Your task to perform on an android device: read, delete, or share a saved page in the chrome app Image 0: 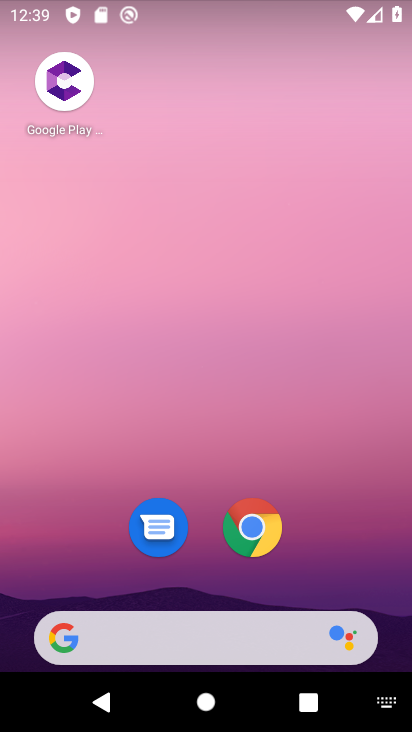
Step 0: drag from (287, 594) to (344, 0)
Your task to perform on an android device: read, delete, or share a saved page in the chrome app Image 1: 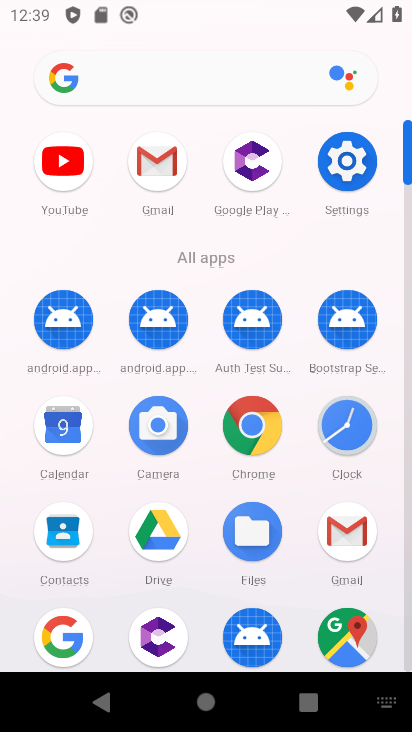
Step 1: click (253, 428)
Your task to perform on an android device: read, delete, or share a saved page in the chrome app Image 2: 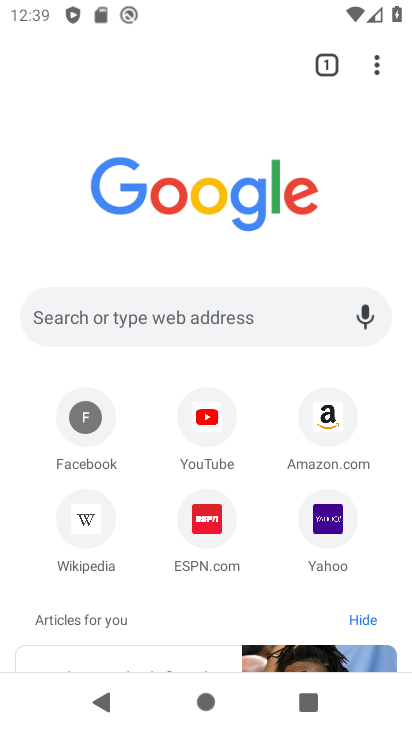
Step 2: click (372, 61)
Your task to perform on an android device: read, delete, or share a saved page in the chrome app Image 3: 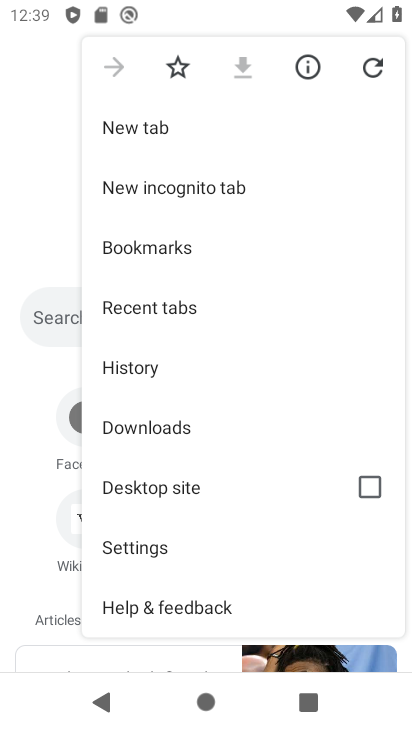
Step 3: click (165, 428)
Your task to perform on an android device: read, delete, or share a saved page in the chrome app Image 4: 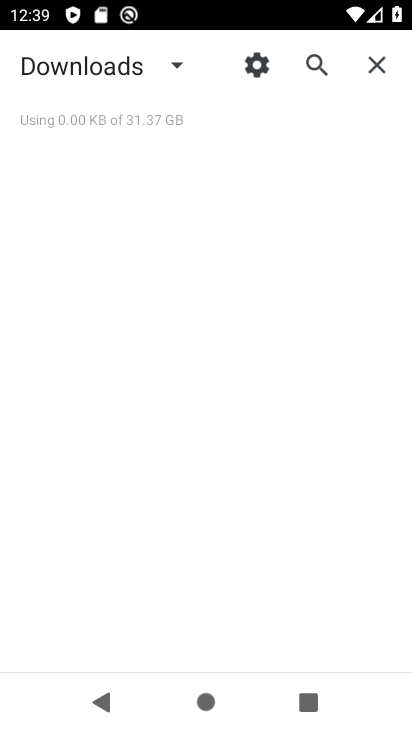
Step 4: click (139, 66)
Your task to perform on an android device: read, delete, or share a saved page in the chrome app Image 5: 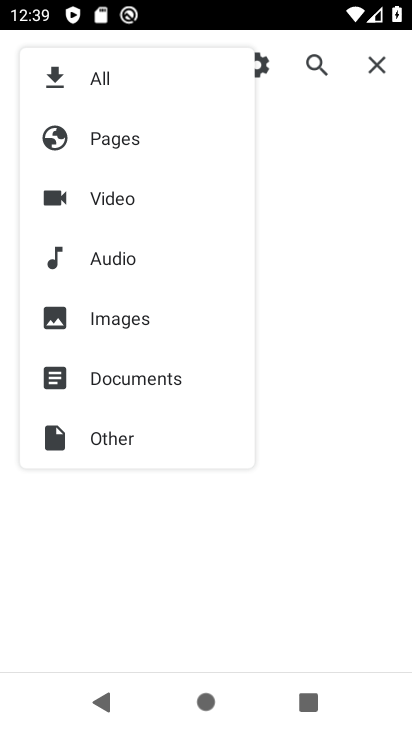
Step 5: click (119, 150)
Your task to perform on an android device: read, delete, or share a saved page in the chrome app Image 6: 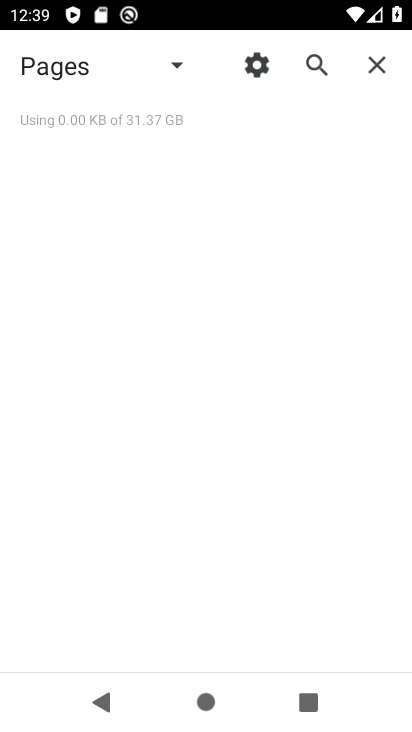
Step 6: task complete